Your task to perform on an android device: Open calendar and show me the second week of next month Image 0: 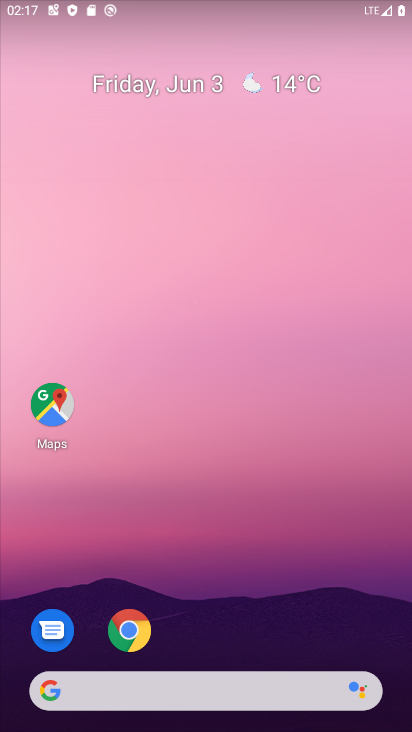
Step 0: drag from (398, 676) to (368, 31)
Your task to perform on an android device: Open calendar and show me the second week of next month Image 1: 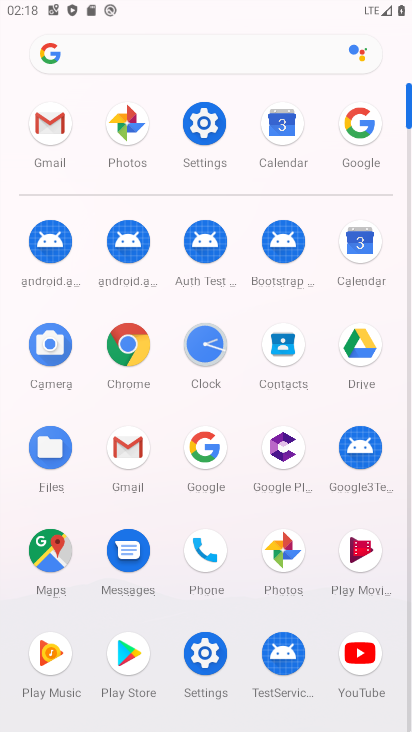
Step 1: click (356, 251)
Your task to perform on an android device: Open calendar and show me the second week of next month Image 2: 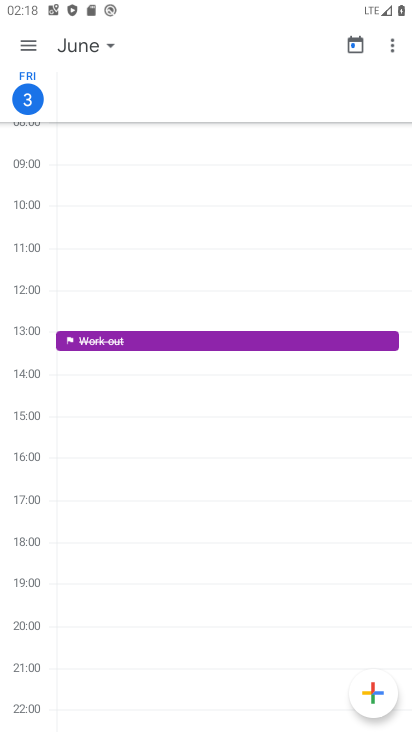
Step 2: click (108, 45)
Your task to perform on an android device: Open calendar and show me the second week of next month Image 3: 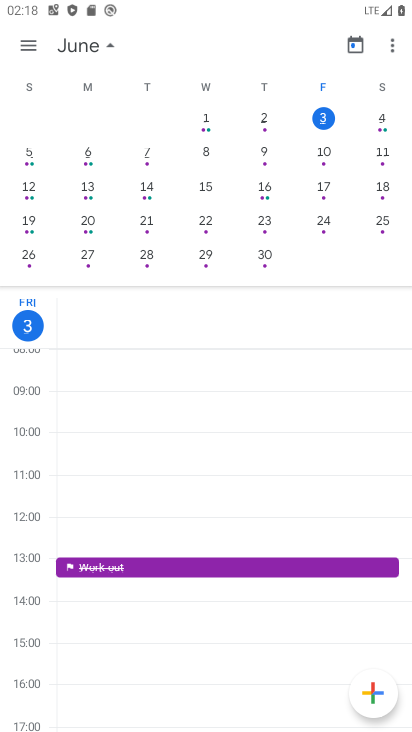
Step 3: drag from (397, 193) to (101, 161)
Your task to perform on an android device: Open calendar and show me the second week of next month Image 4: 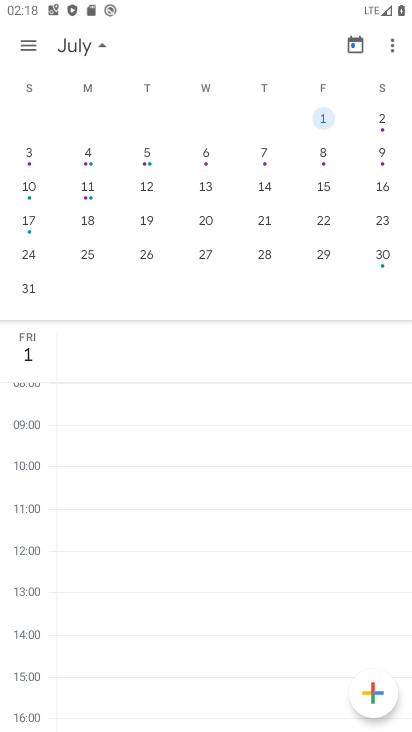
Step 4: click (258, 154)
Your task to perform on an android device: Open calendar and show me the second week of next month Image 5: 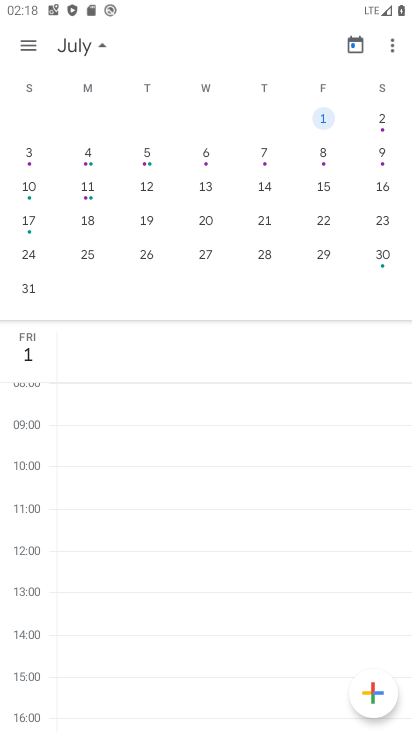
Step 5: click (264, 148)
Your task to perform on an android device: Open calendar and show me the second week of next month Image 6: 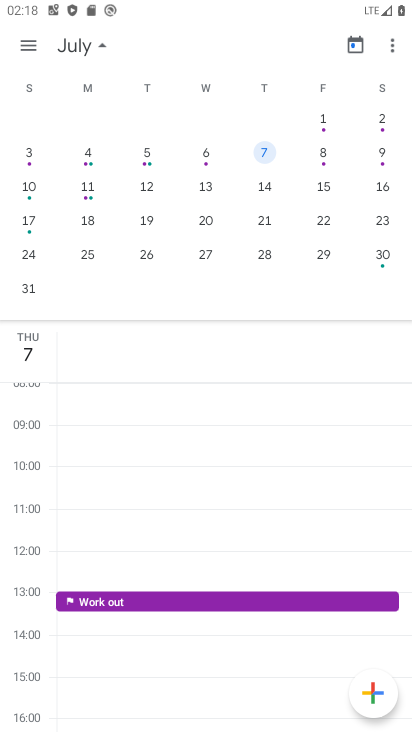
Step 6: click (33, 48)
Your task to perform on an android device: Open calendar and show me the second week of next month Image 7: 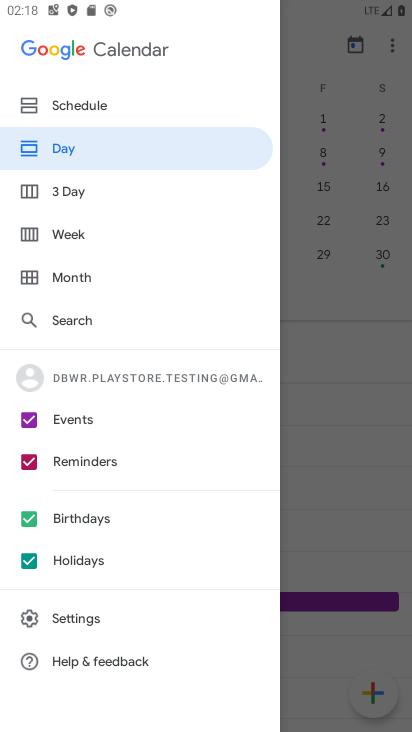
Step 7: click (63, 230)
Your task to perform on an android device: Open calendar and show me the second week of next month Image 8: 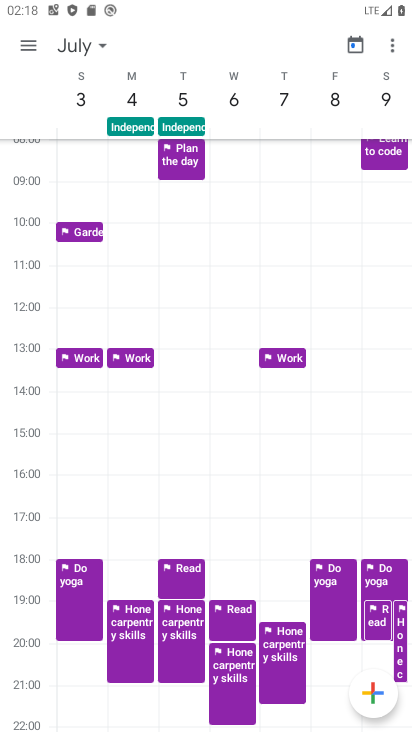
Step 8: task complete